Your task to perform on an android device: Go to sound settings Image 0: 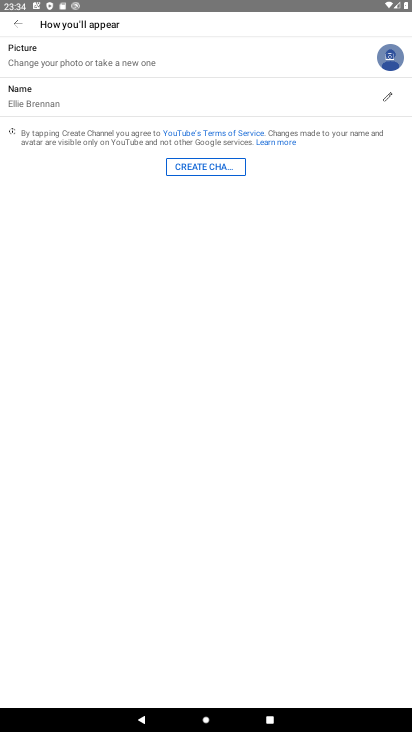
Step 0: press home button
Your task to perform on an android device: Go to sound settings Image 1: 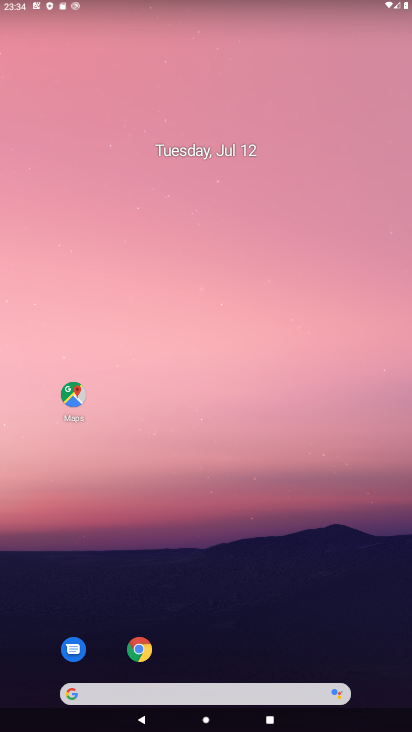
Step 1: drag from (377, 657) to (331, 153)
Your task to perform on an android device: Go to sound settings Image 2: 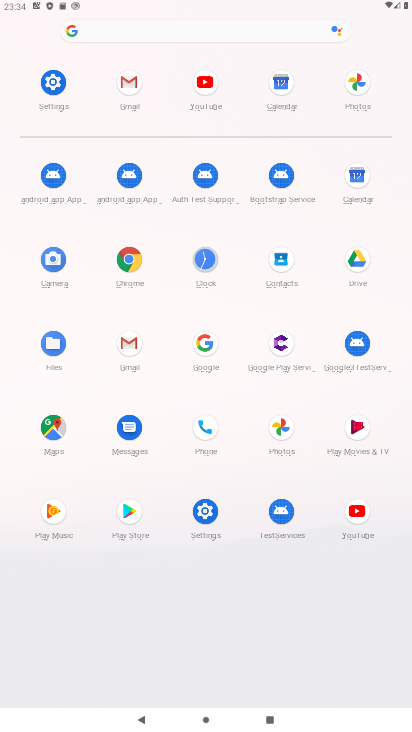
Step 2: click (203, 510)
Your task to perform on an android device: Go to sound settings Image 3: 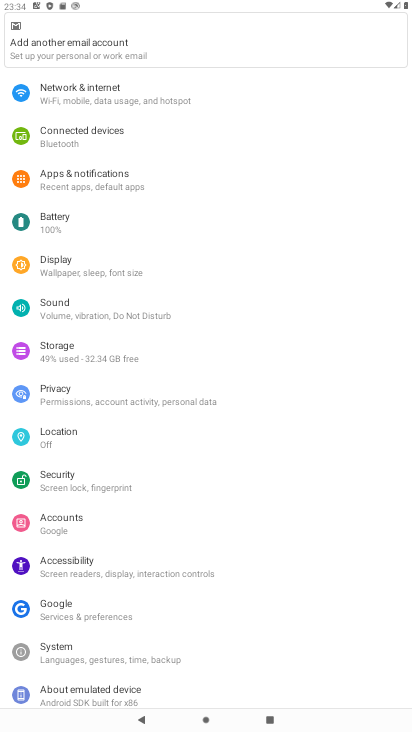
Step 3: click (52, 307)
Your task to perform on an android device: Go to sound settings Image 4: 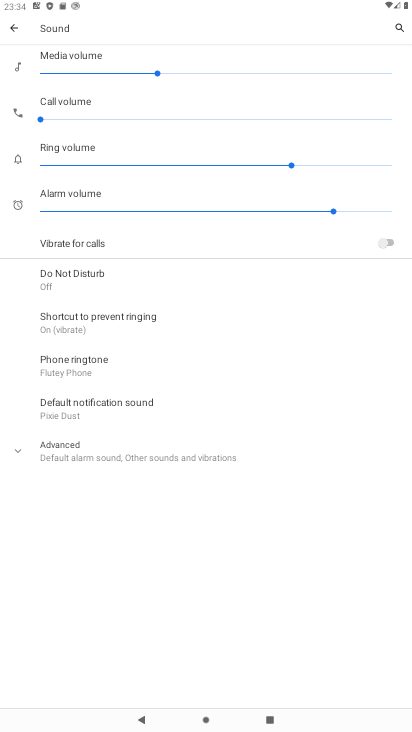
Step 4: click (12, 452)
Your task to perform on an android device: Go to sound settings Image 5: 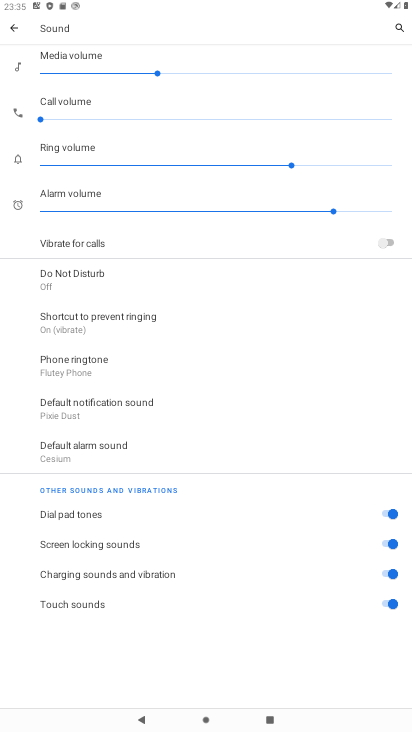
Step 5: task complete